Your task to perform on an android device: What's the weather like in Paris? Image 0: 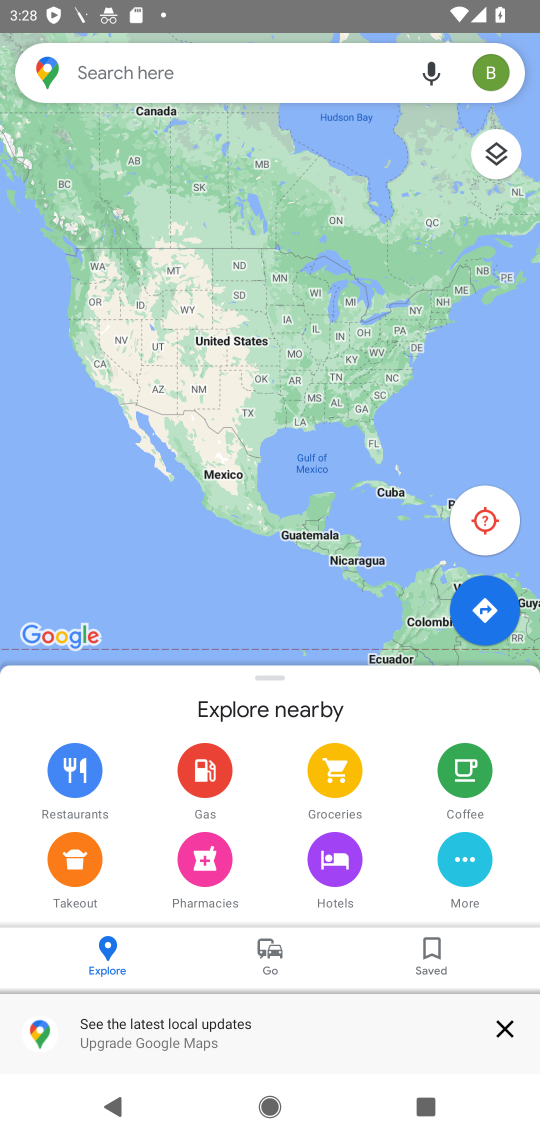
Step 0: press home button
Your task to perform on an android device: What's the weather like in Paris? Image 1: 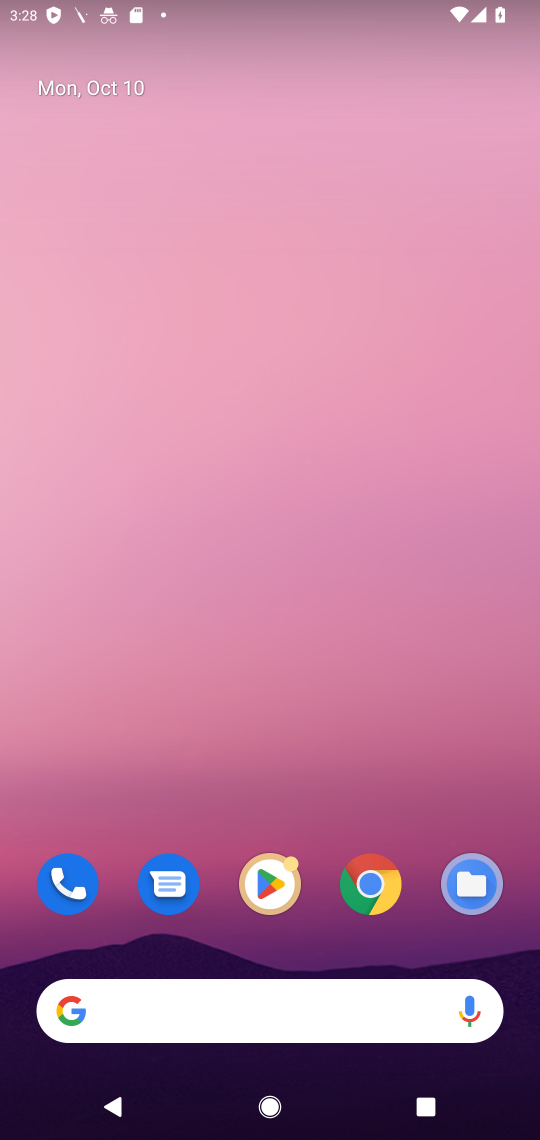
Step 1: click (0, 0)
Your task to perform on an android device: What's the weather like in Paris? Image 2: 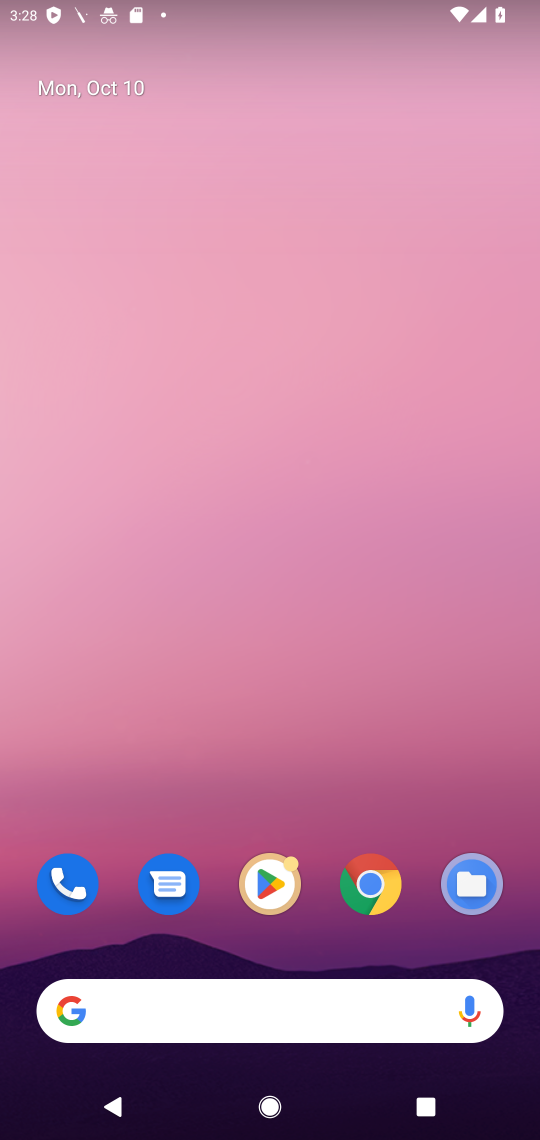
Step 2: click (380, 1002)
Your task to perform on an android device: What's the weather like in Paris? Image 3: 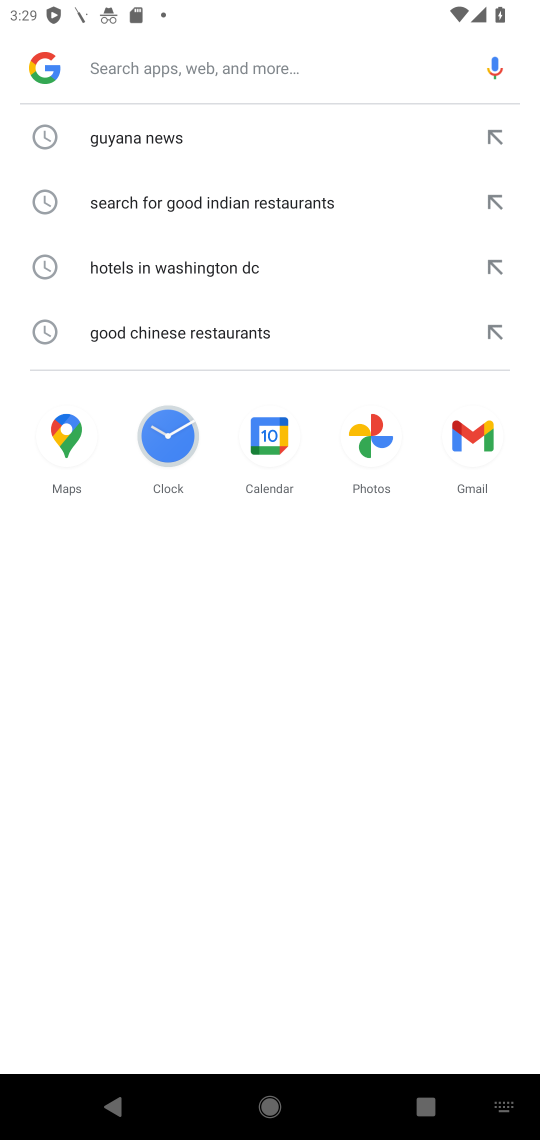
Step 3: type "What's the weather like in Paris?"
Your task to perform on an android device: What's the weather like in Paris? Image 4: 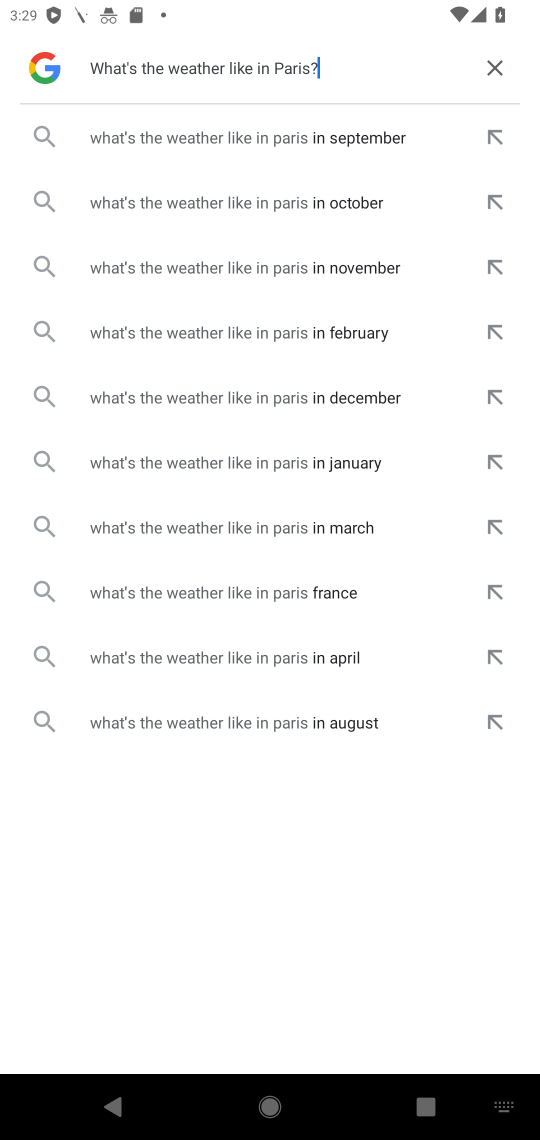
Step 4: click (221, 197)
Your task to perform on an android device: What's the weather like in Paris? Image 5: 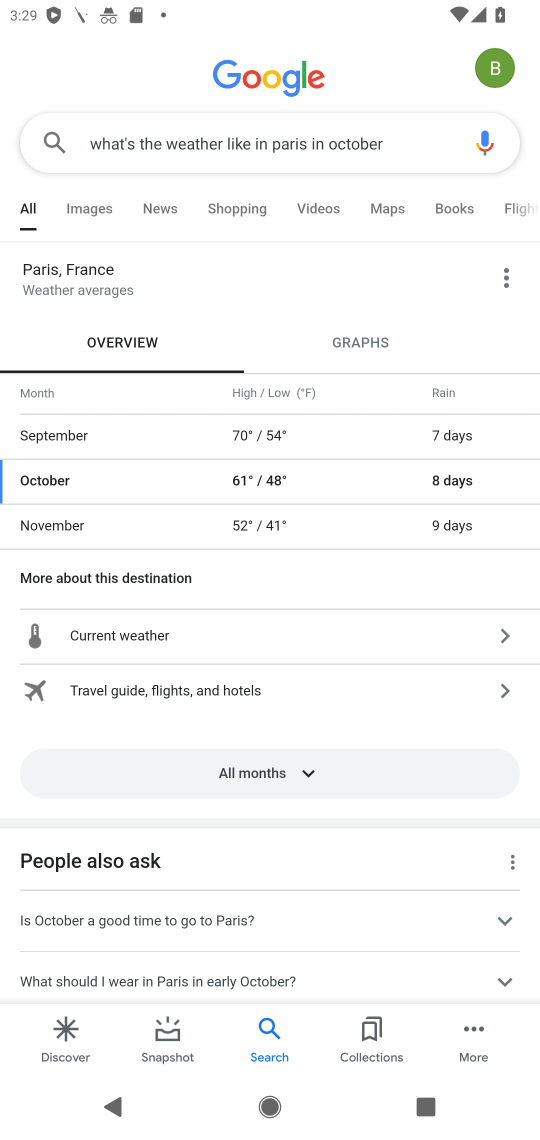
Step 5: task complete